Your task to perform on an android device: Go to Yahoo.com Image 0: 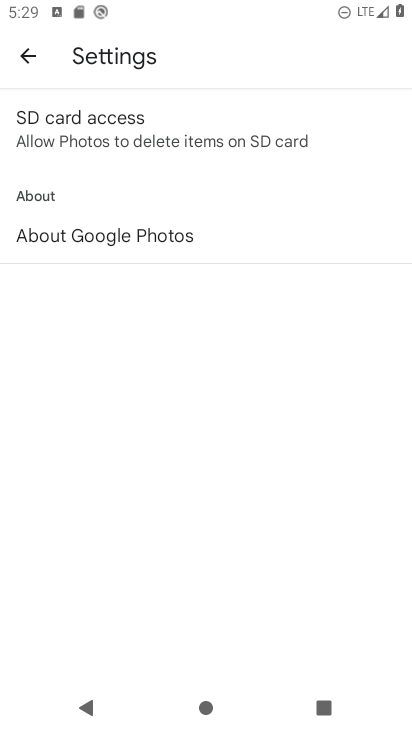
Step 0: press home button
Your task to perform on an android device: Go to Yahoo.com Image 1: 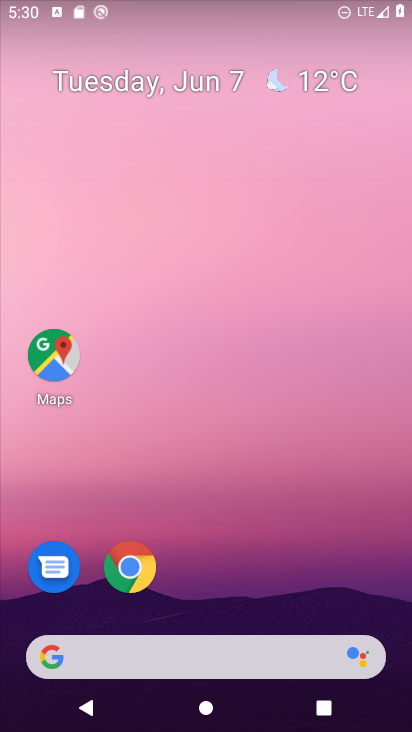
Step 1: drag from (196, 652) to (181, 46)
Your task to perform on an android device: Go to Yahoo.com Image 2: 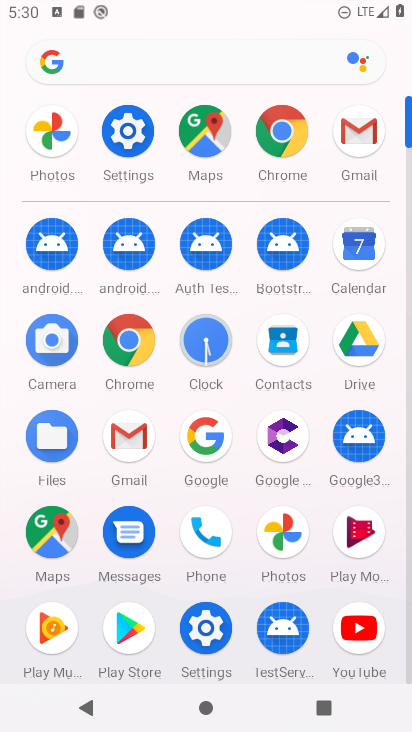
Step 2: click (112, 337)
Your task to perform on an android device: Go to Yahoo.com Image 3: 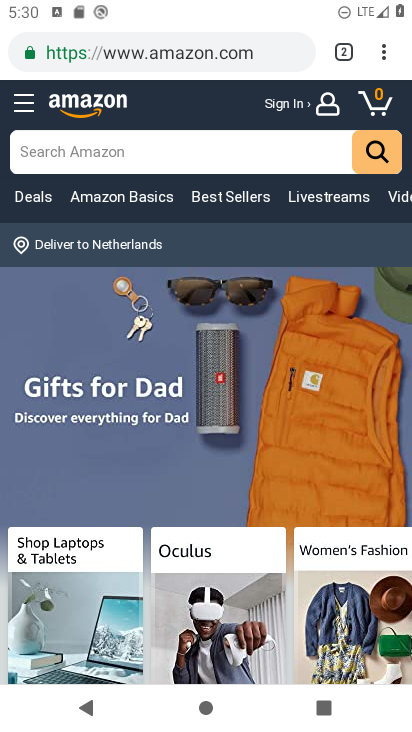
Step 3: drag from (381, 43) to (224, 105)
Your task to perform on an android device: Go to Yahoo.com Image 4: 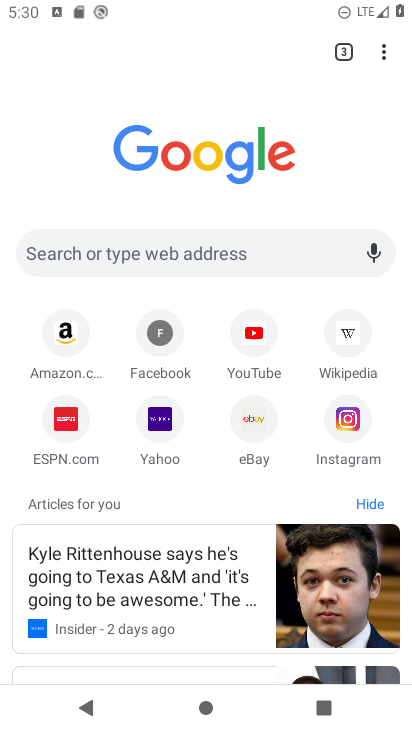
Step 4: click (173, 424)
Your task to perform on an android device: Go to Yahoo.com Image 5: 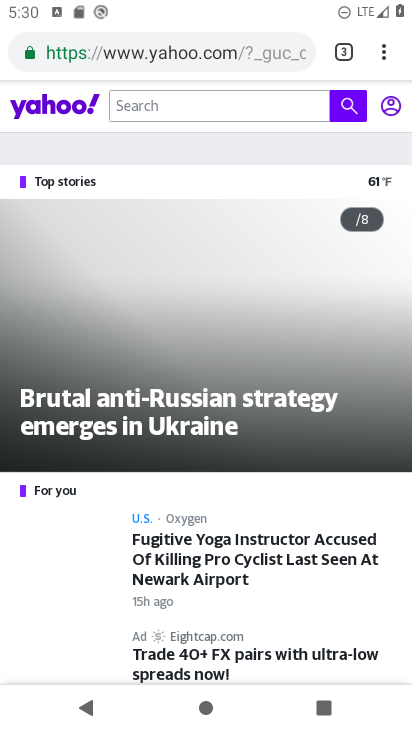
Step 5: task complete